Your task to perform on an android device: Check the settings for the Facebook app Image 0: 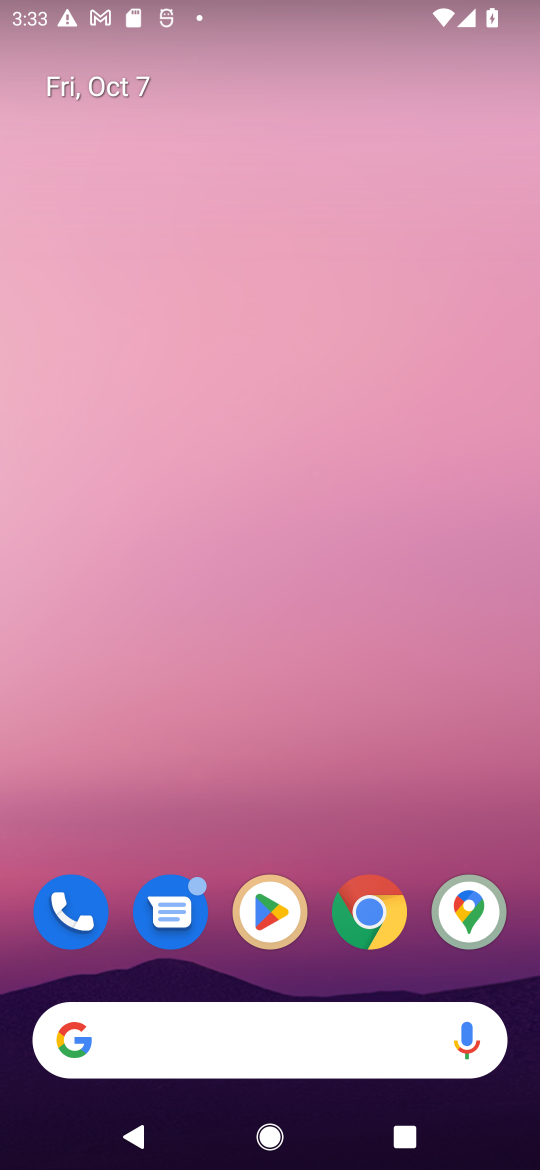
Step 0: drag from (253, 967) to (318, 379)
Your task to perform on an android device: Check the settings for the Facebook app Image 1: 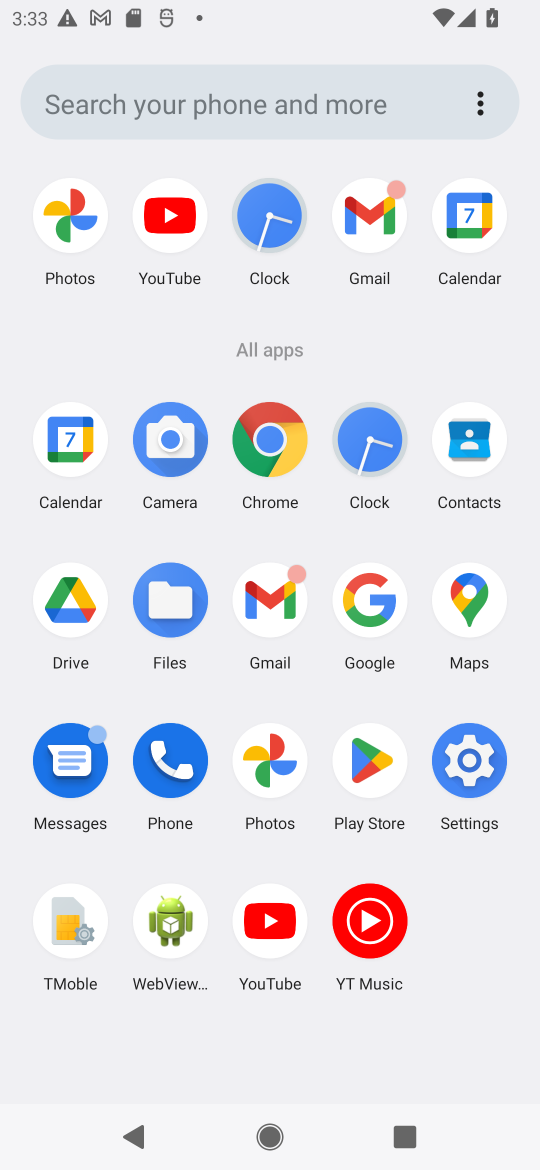
Step 1: click (372, 755)
Your task to perform on an android device: Check the settings for the Facebook app Image 2: 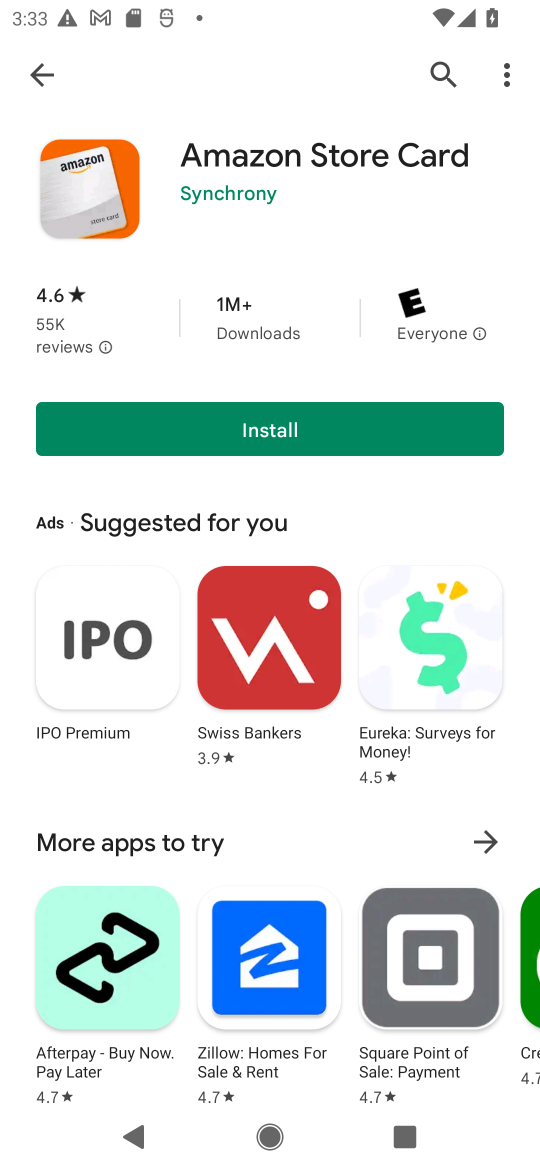
Step 2: click (24, 67)
Your task to perform on an android device: Check the settings for the Facebook app Image 3: 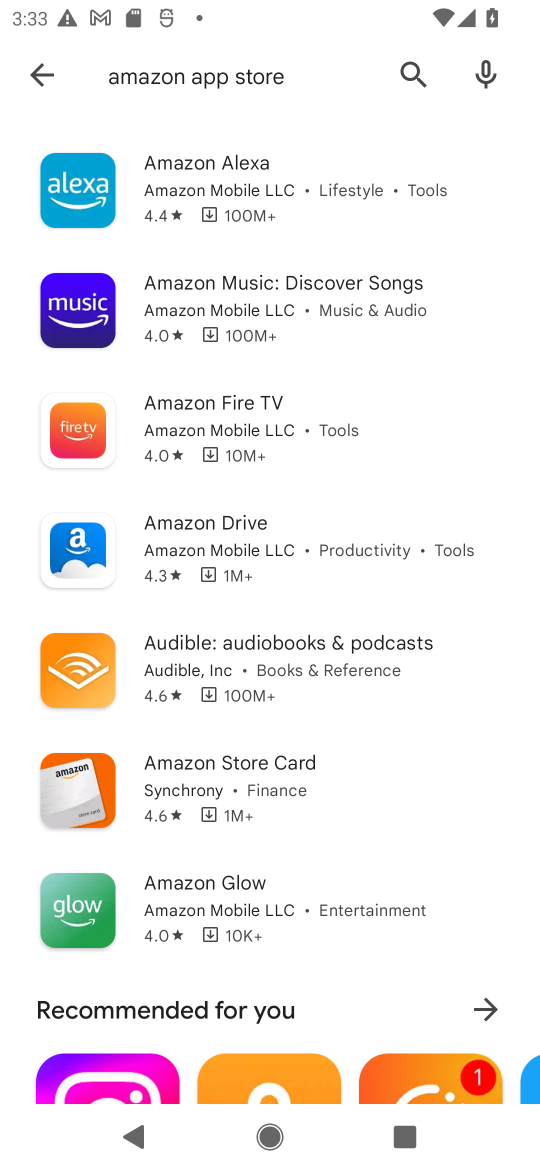
Step 3: click (402, 66)
Your task to perform on an android device: Check the settings for the Facebook app Image 4: 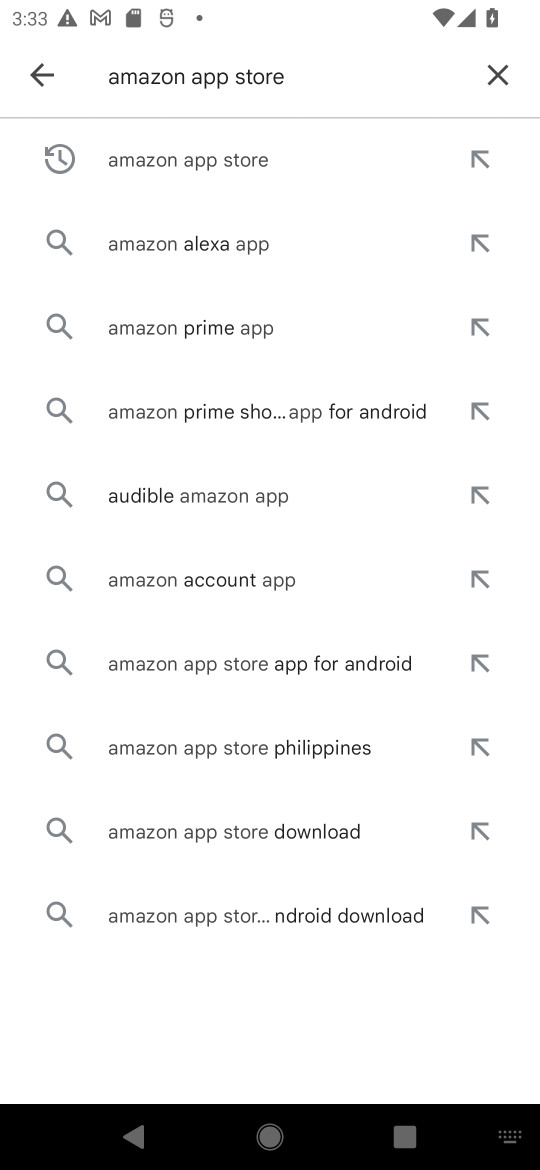
Step 4: click (490, 75)
Your task to perform on an android device: Check the settings for the Facebook app Image 5: 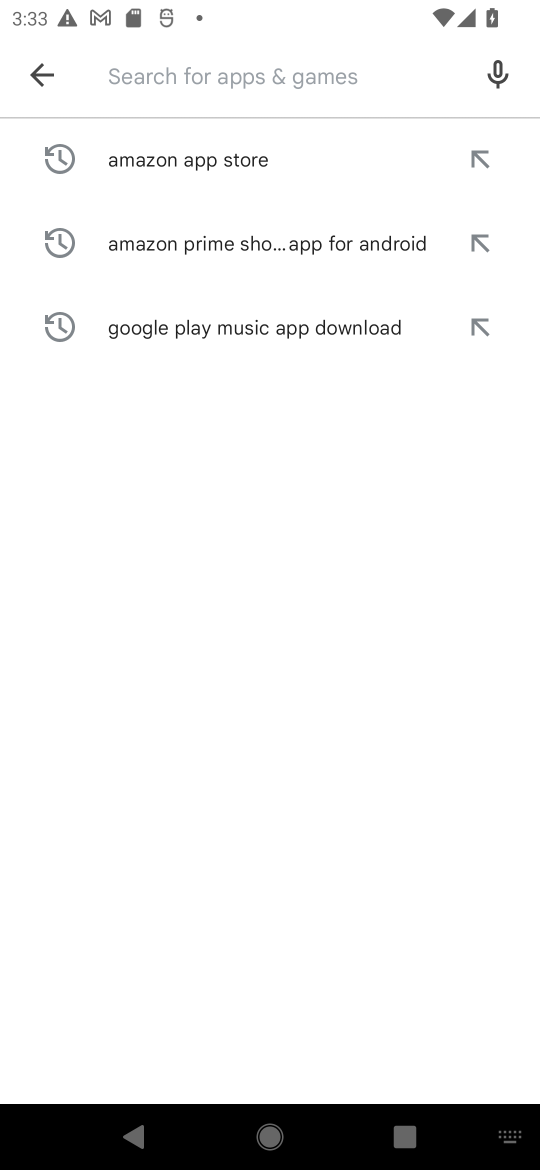
Step 5: click (339, 71)
Your task to perform on an android device: Check the settings for the Facebook app Image 6: 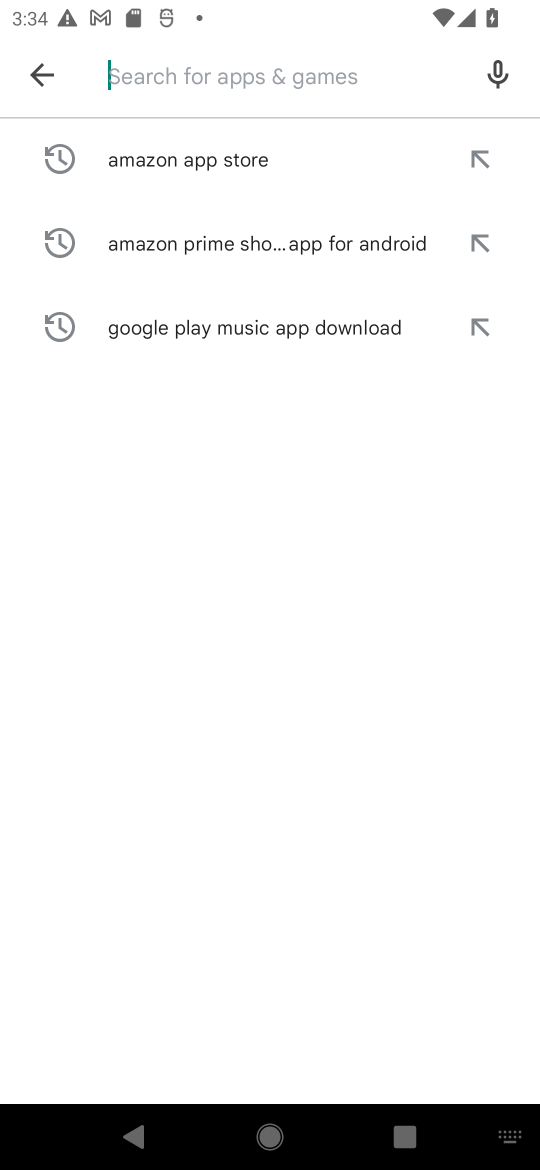
Step 6: type "facebook"
Your task to perform on an android device: Check the settings for the Facebook app Image 7: 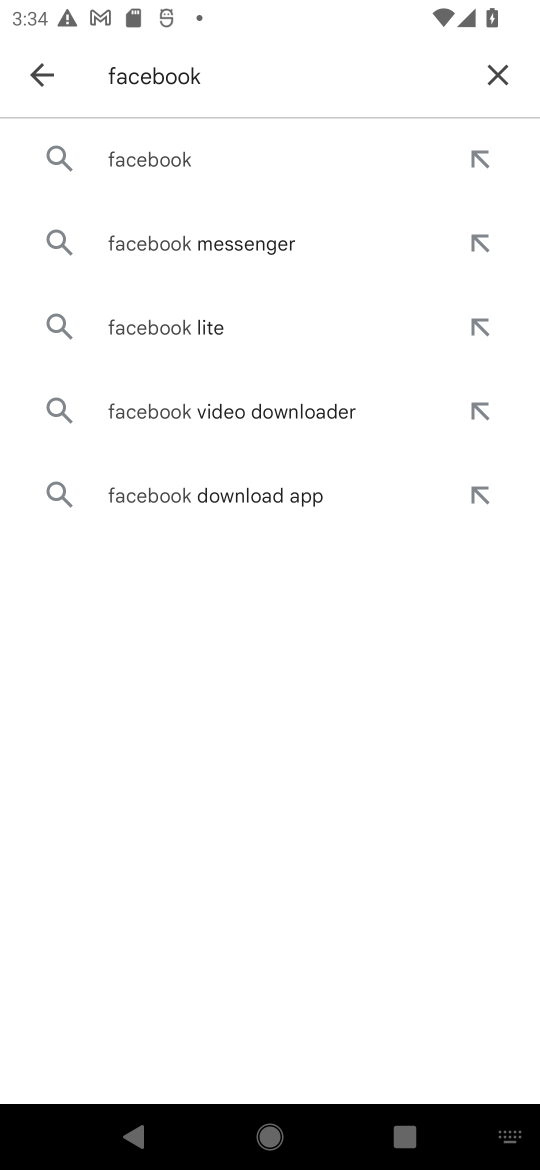
Step 7: click (218, 146)
Your task to perform on an android device: Check the settings for the Facebook app Image 8: 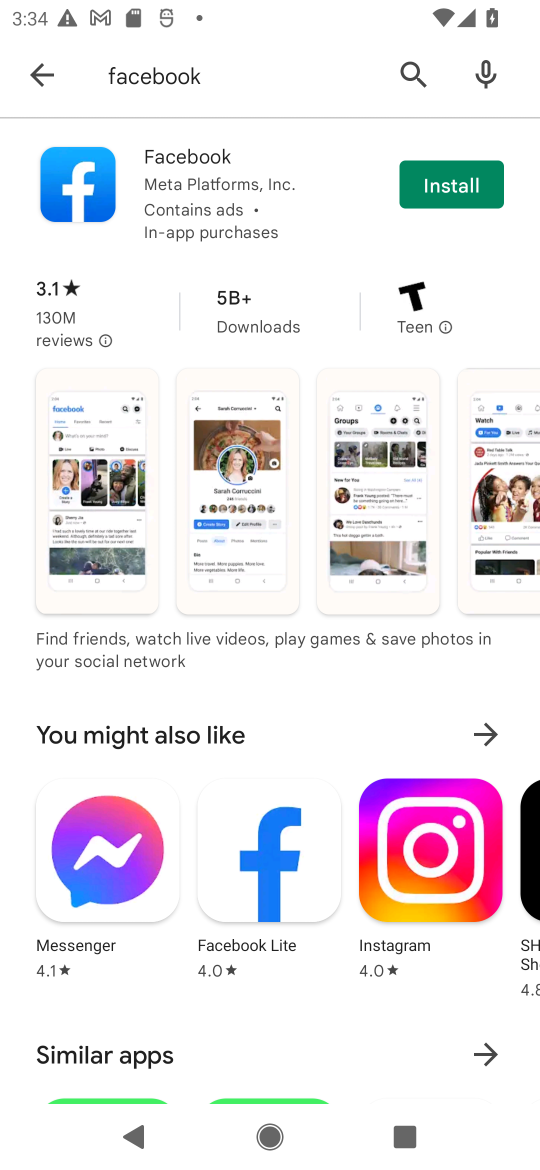
Step 8: click (440, 182)
Your task to perform on an android device: Check the settings for the Facebook app Image 9: 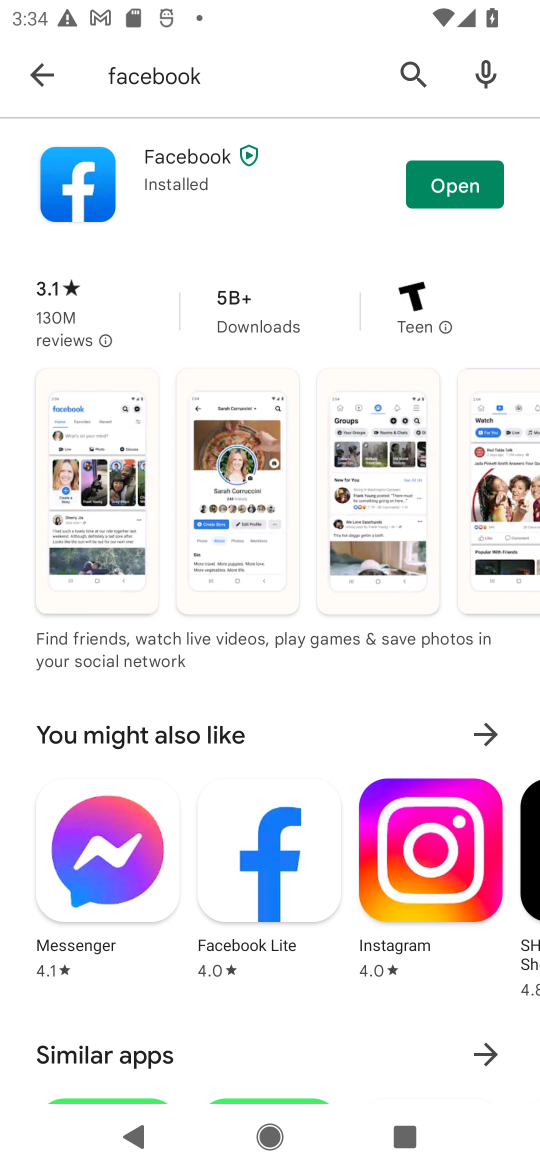
Step 9: click (440, 182)
Your task to perform on an android device: Check the settings for the Facebook app Image 10: 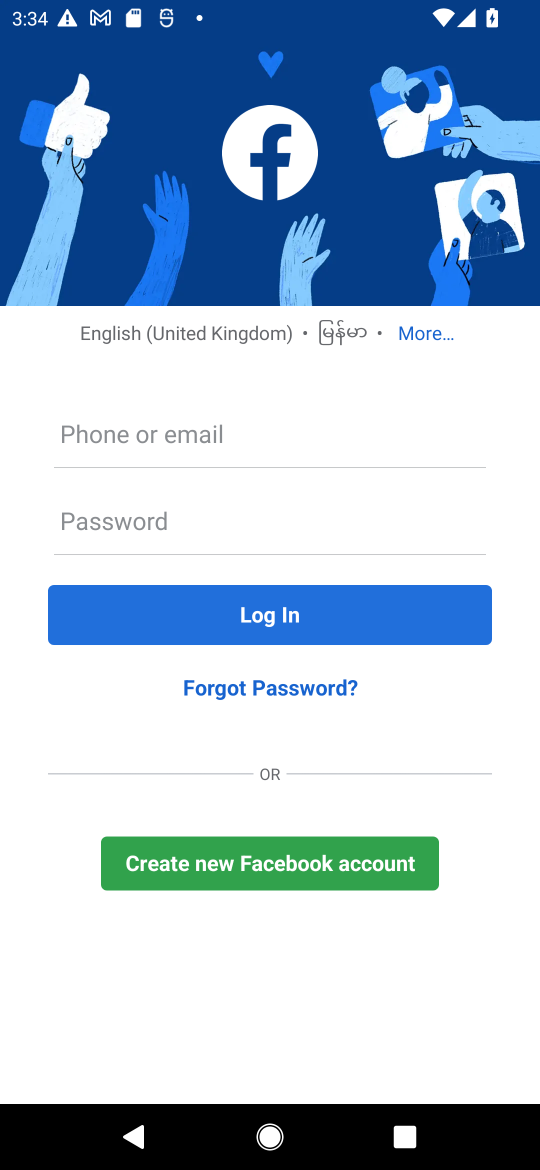
Step 10: task complete